Your task to perform on an android device: uninstall "DoorDash - Food Delivery" Image 0: 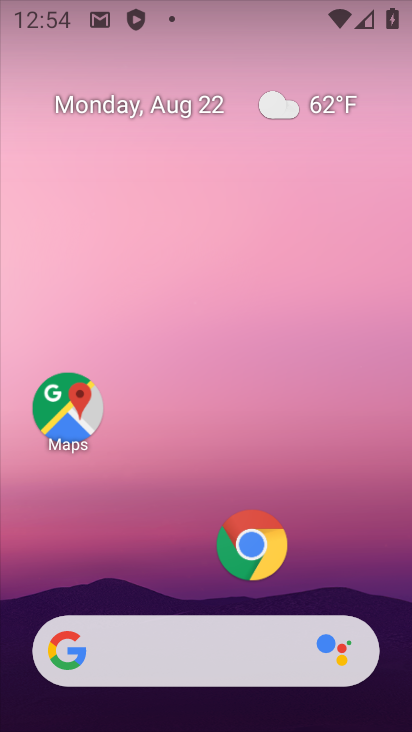
Step 0: drag from (137, 594) to (169, 93)
Your task to perform on an android device: uninstall "DoorDash - Food Delivery" Image 1: 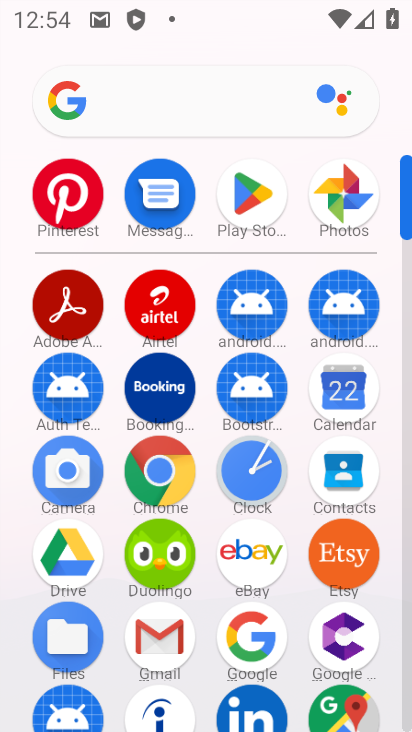
Step 1: click (255, 181)
Your task to perform on an android device: uninstall "DoorDash - Food Delivery" Image 2: 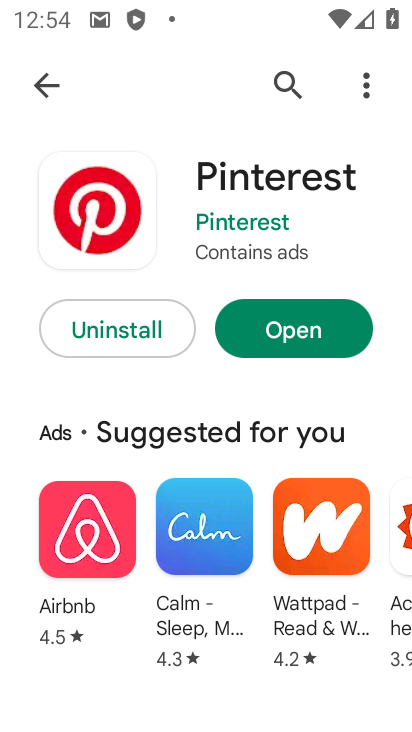
Step 2: click (277, 68)
Your task to perform on an android device: uninstall "DoorDash - Food Delivery" Image 3: 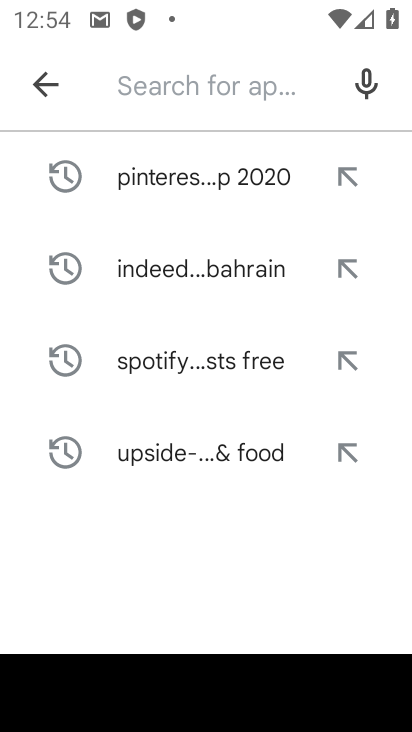
Step 3: click (136, 79)
Your task to perform on an android device: uninstall "DoorDash - Food Delivery" Image 4: 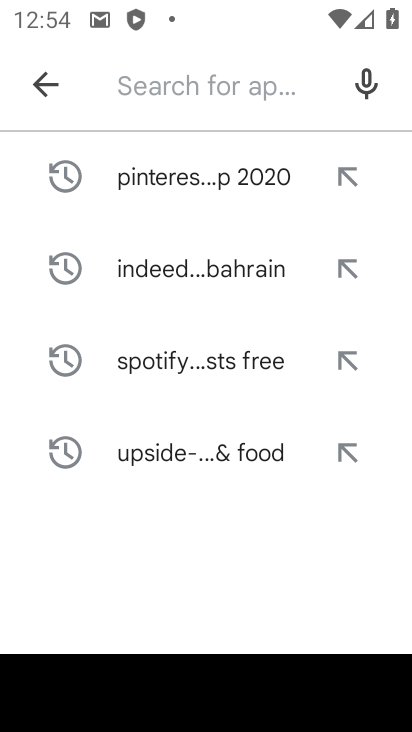
Step 4: type "DoorDash"
Your task to perform on an android device: uninstall "DoorDash - Food Delivery" Image 5: 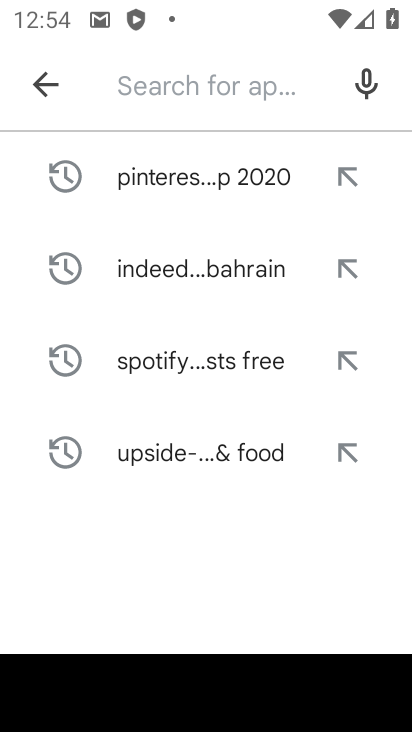
Step 5: click (209, 604)
Your task to perform on an android device: uninstall "DoorDash - Food Delivery" Image 6: 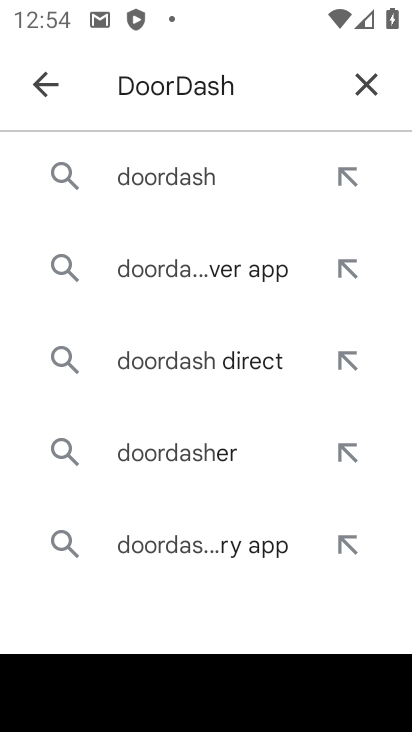
Step 6: click (185, 175)
Your task to perform on an android device: uninstall "DoorDash - Food Delivery" Image 7: 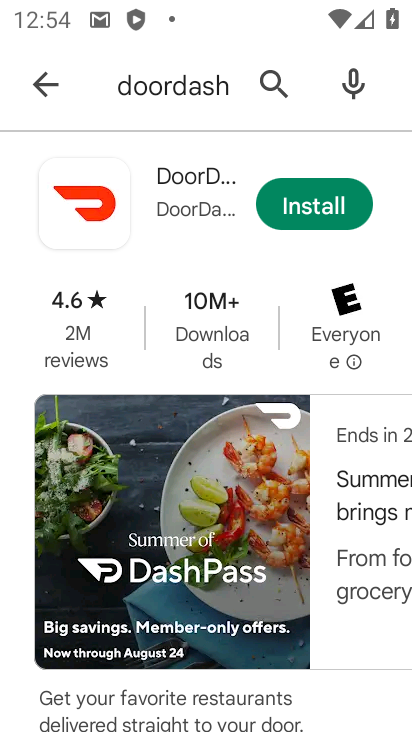
Step 7: click (188, 180)
Your task to perform on an android device: uninstall "DoorDash - Food Delivery" Image 8: 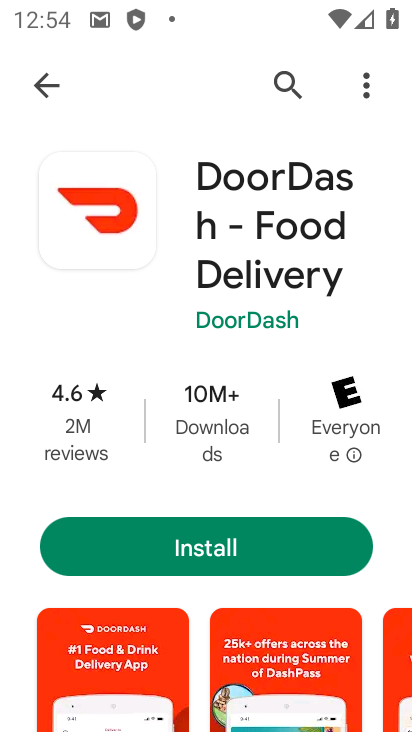
Step 8: task complete